Your task to perform on an android device: Open calendar and show me the fourth week of next month Image 0: 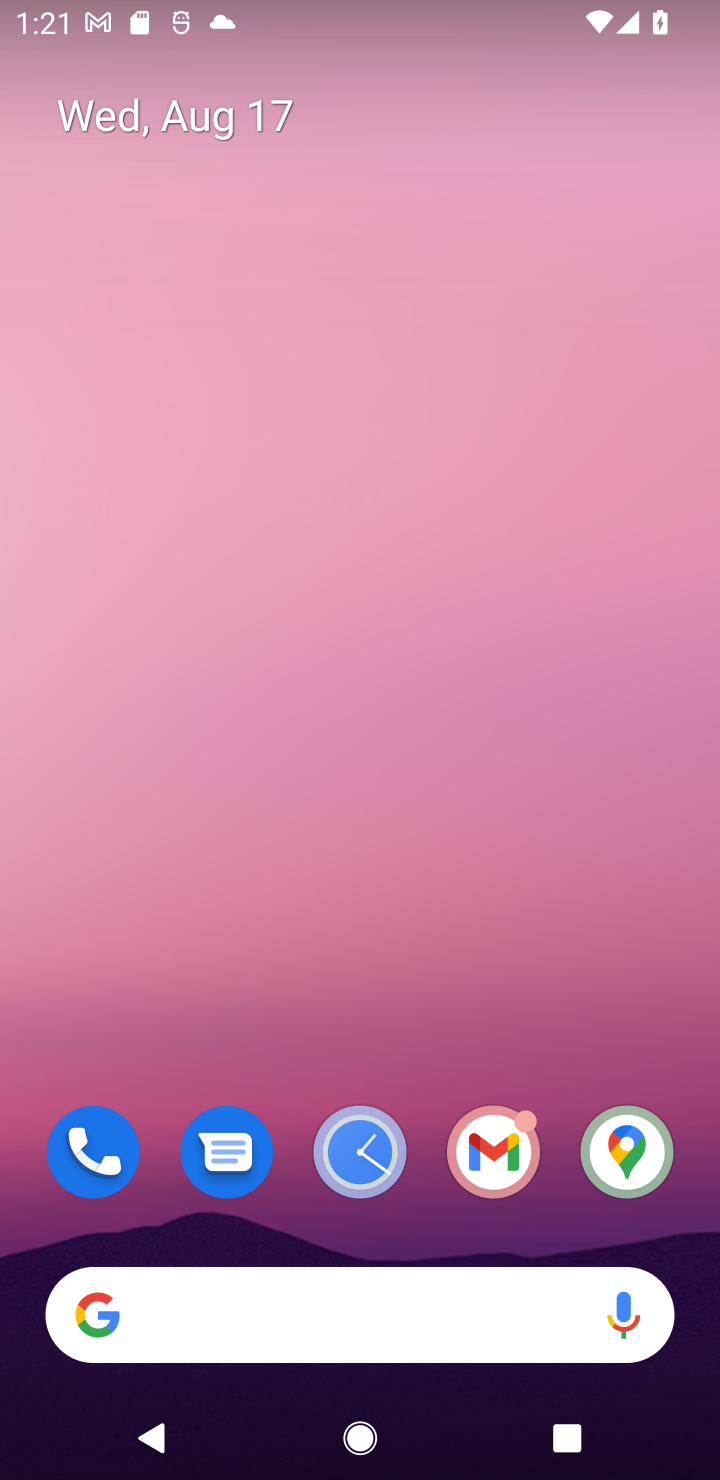
Step 0: drag from (580, 1209) to (478, 60)
Your task to perform on an android device: Open calendar and show me the fourth week of next month Image 1: 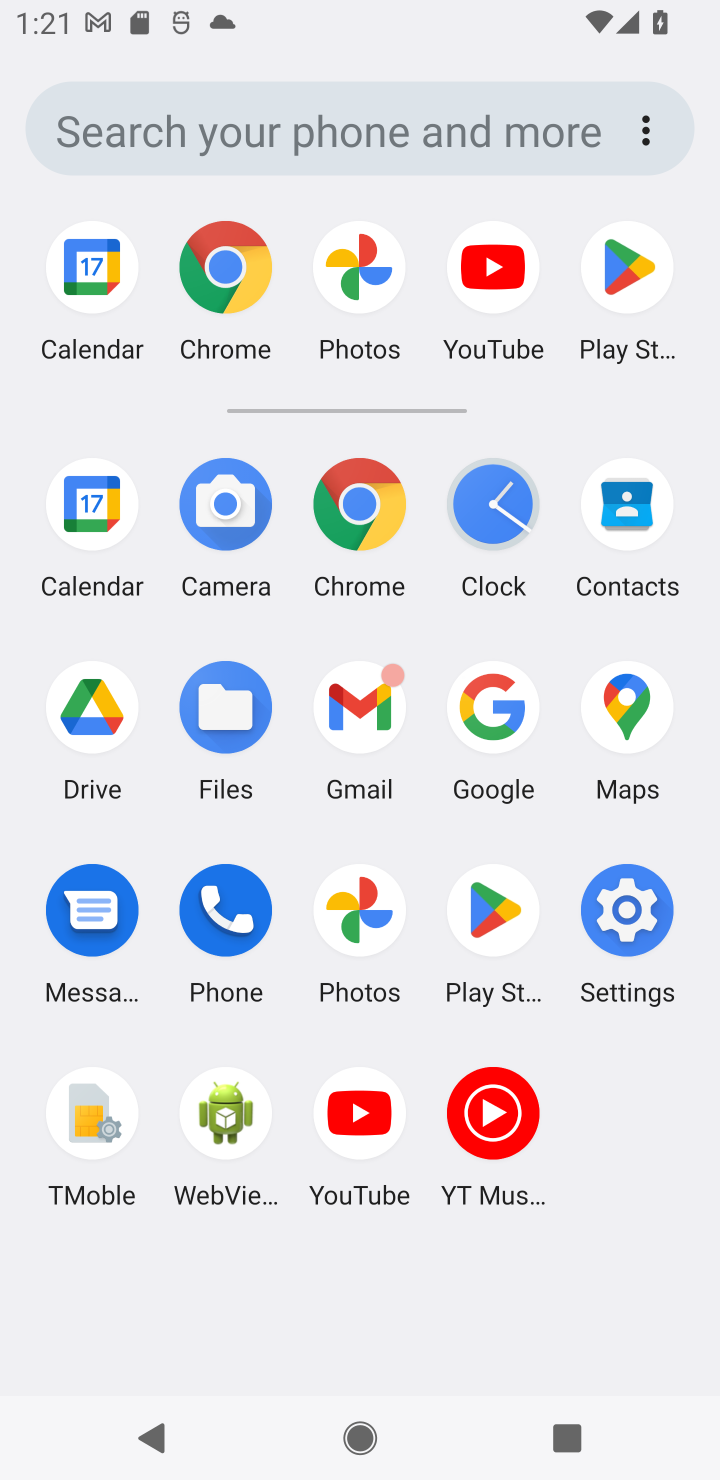
Step 1: click (83, 481)
Your task to perform on an android device: Open calendar and show me the fourth week of next month Image 2: 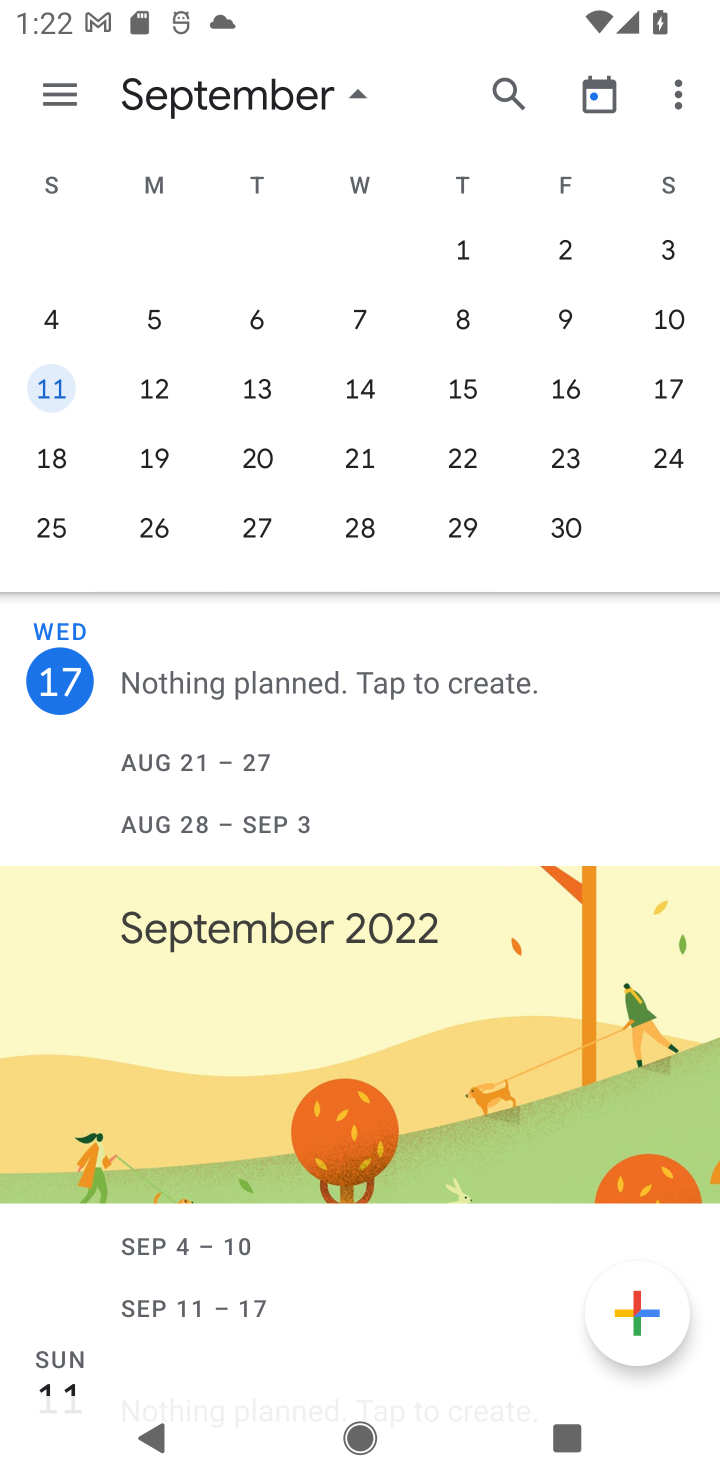
Step 2: drag from (640, 303) to (37, 377)
Your task to perform on an android device: Open calendar and show me the fourth week of next month Image 3: 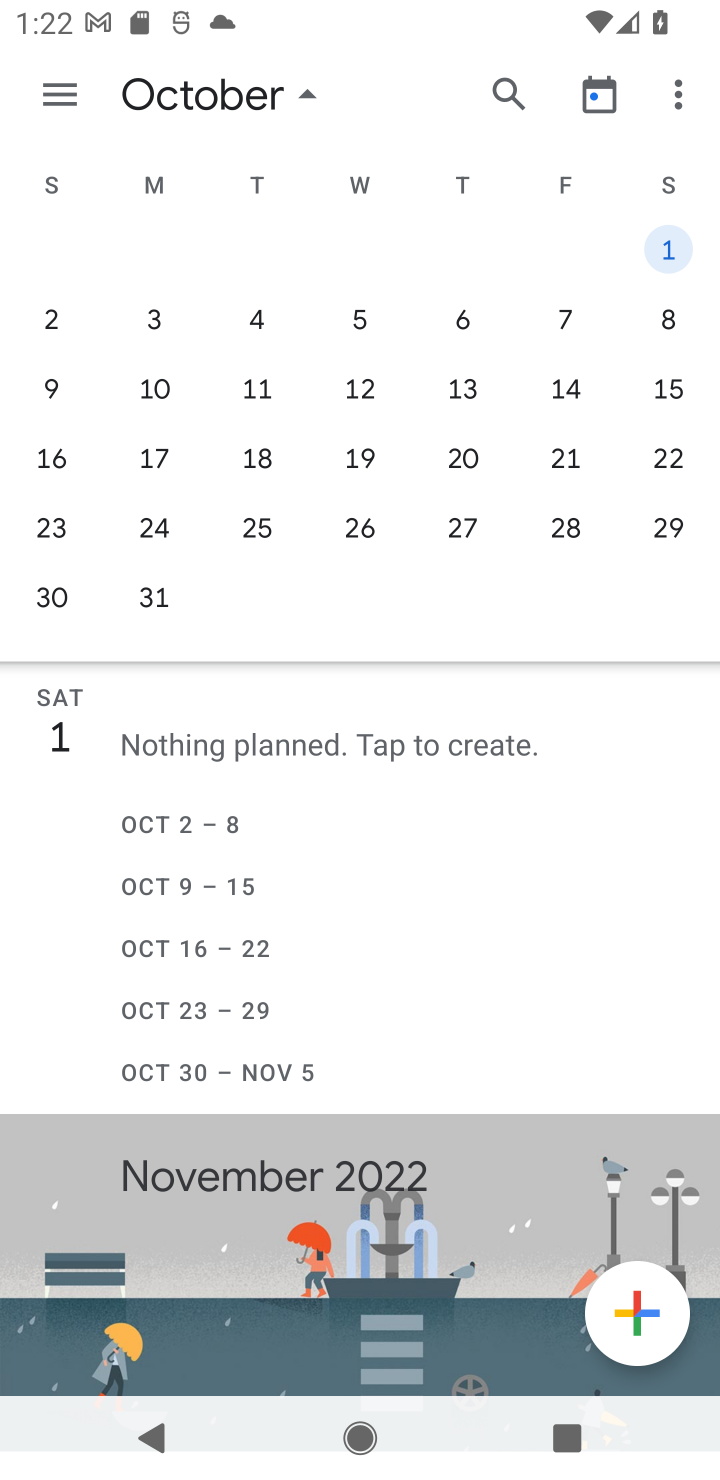
Step 3: click (45, 523)
Your task to perform on an android device: Open calendar and show me the fourth week of next month Image 4: 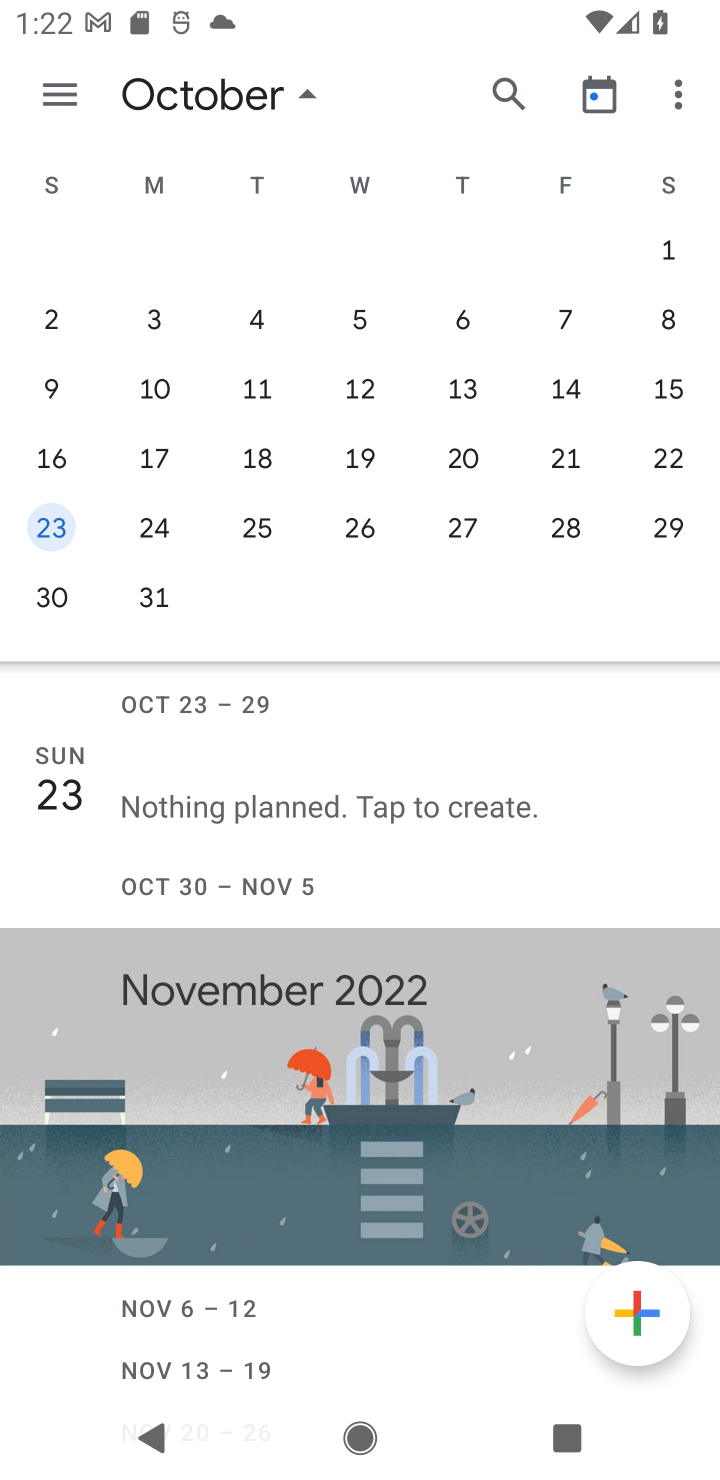
Step 4: task complete